Your task to perform on an android device: check battery use Image 0: 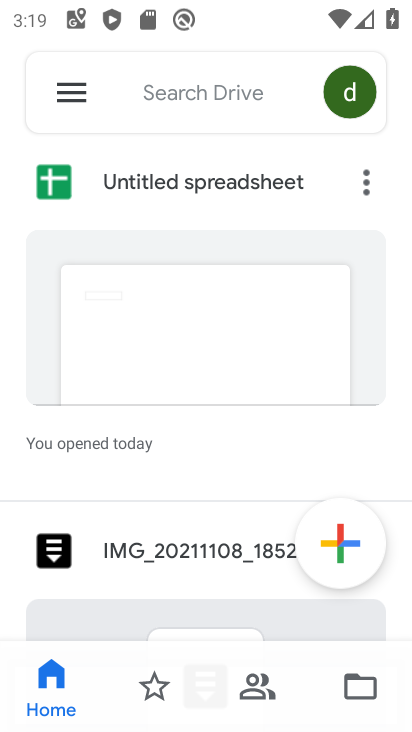
Step 0: press home button
Your task to perform on an android device: check battery use Image 1: 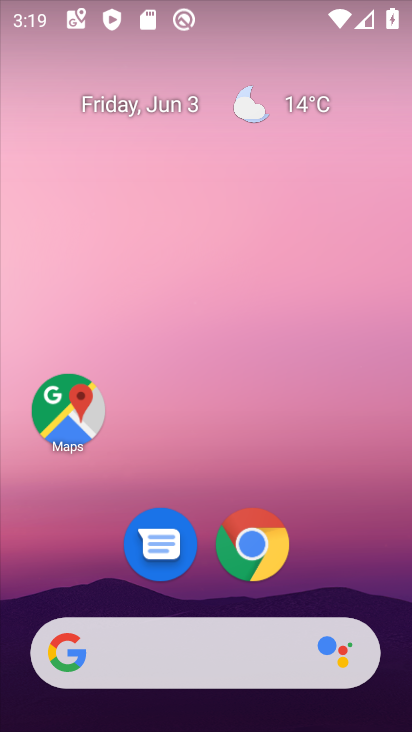
Step 1: drag from (396, 604) to (303, 50)
Your task to perform on an android device: check battery use Image 2: 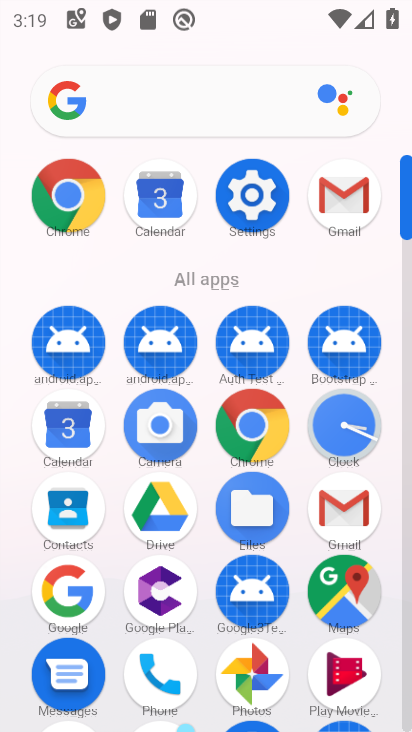
Step 2: click (410, 702)
Your task to perform on an android device: check battery use Image 3: 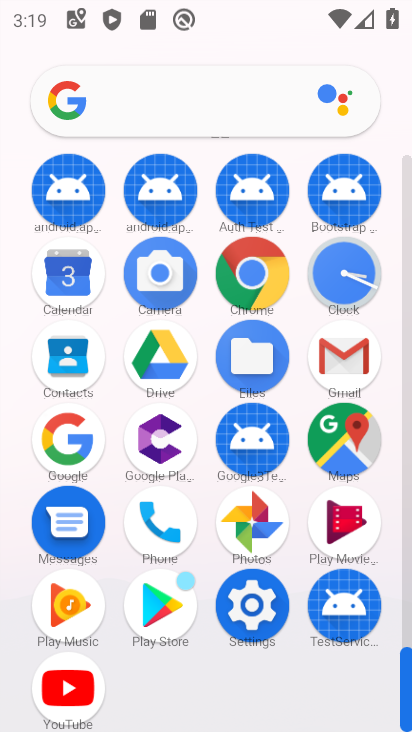
Step 3: click (252, 601)
Your task to perform on an android device: check battery use Image 4: 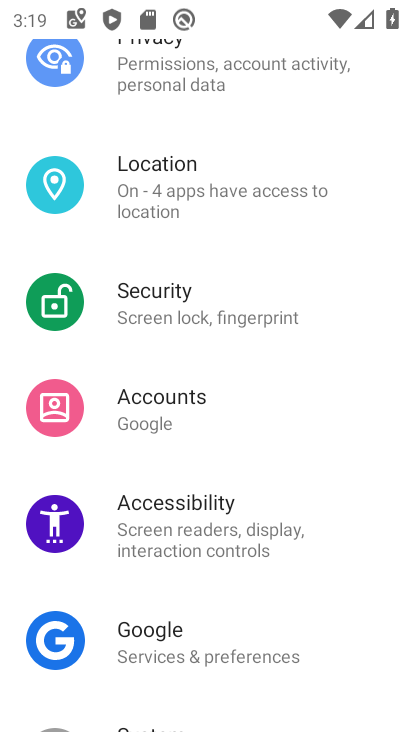
Step 4: drag from (379, 242) to (330, 588)
Your task to perform on an android device: check battery use Image 5: 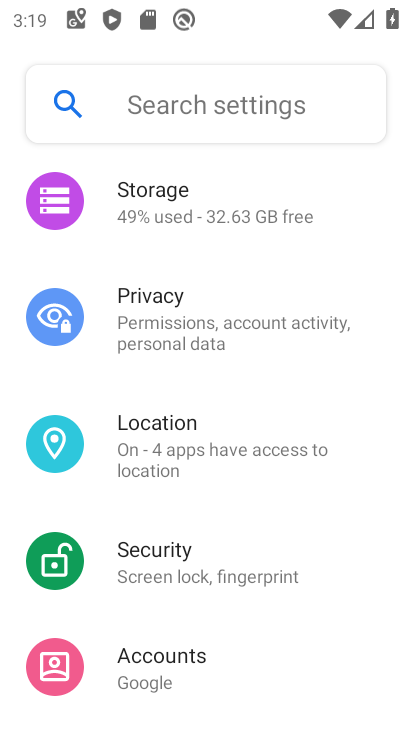
Step 5: drag from (354, 322) to (350, 651)
Your task to perform on an android device: check battery use Image 6: 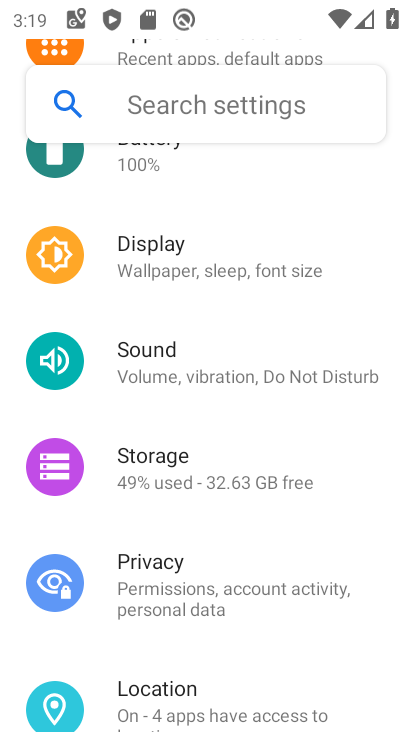
Step 6: drag from (393, 253) to (381, 562)
Your task to perform on an android device: check battery use Image 7: 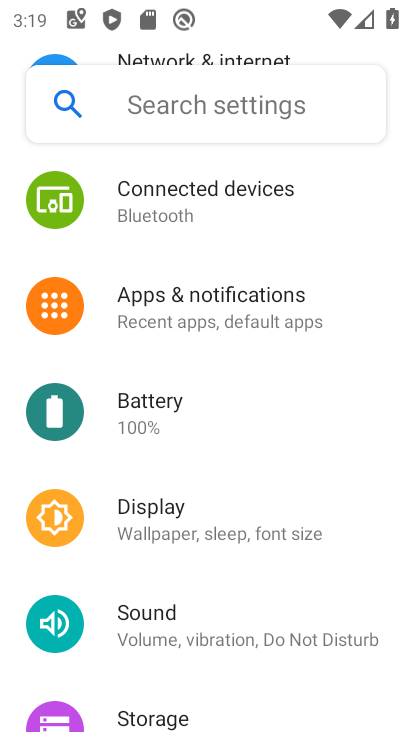
Step 7: click (128, 399)
Your task to perform on an android device: check battery use Image 8: 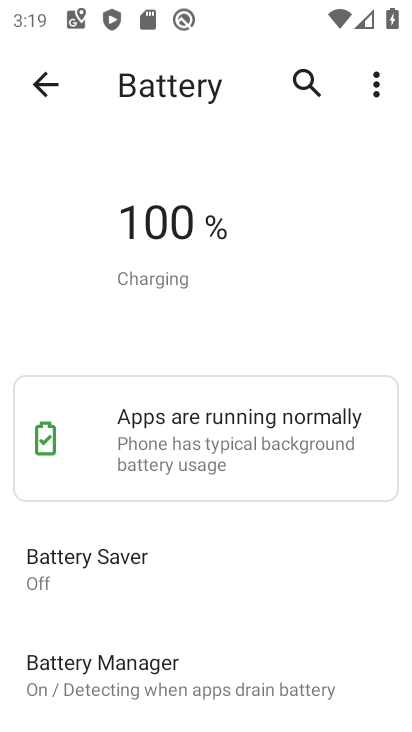
Step 8: drag from (249, 634) to (263, 229)
Your task to perform on an android device: check battery use Image 9: 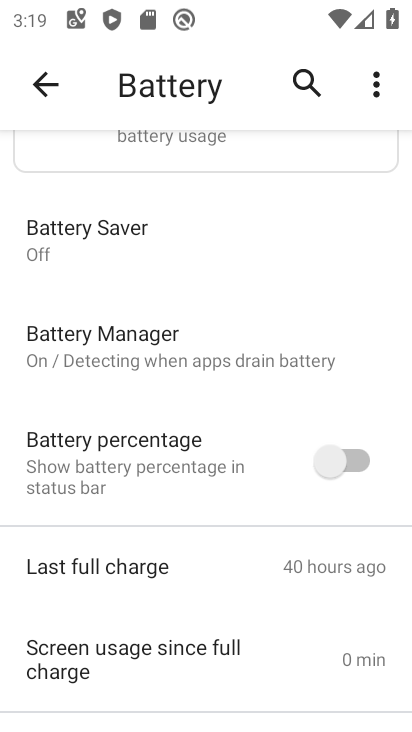
Step 9: click (371, 91)
Your task to perform on an android device: check battery use Image 10: 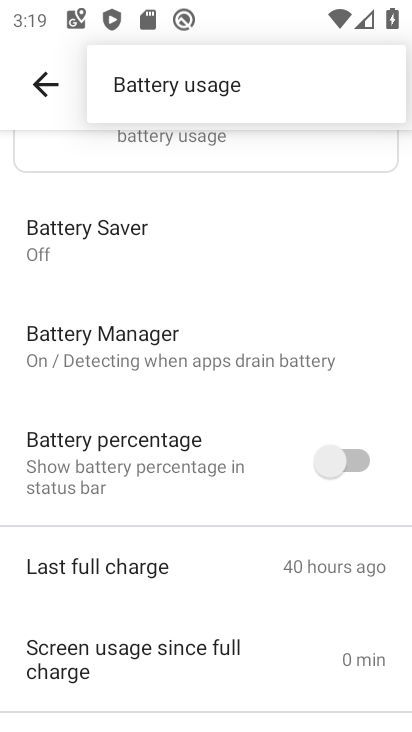
Step 10: click (160, 87)
Your task to perform on an android device: check battery use Image 11: 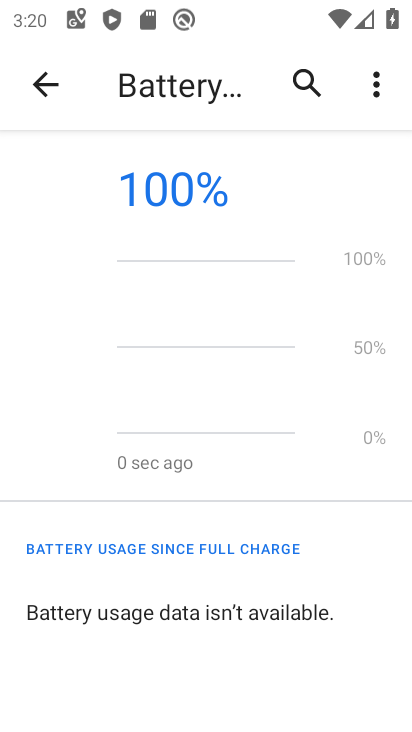
Step 11: task complete